Your task to perform on an android device: See recent photos Image 0: 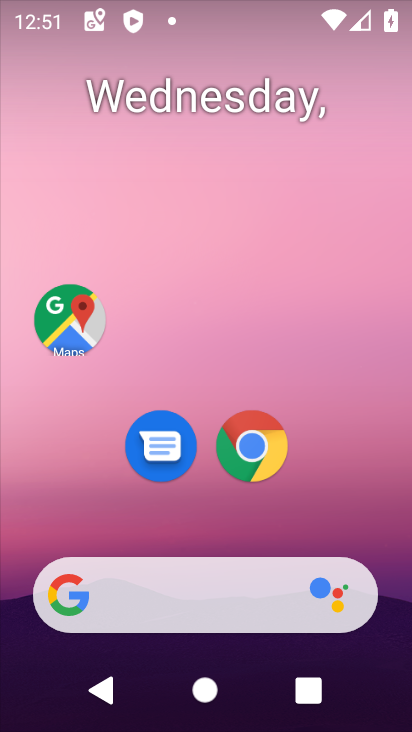
Step 0: drag from (312, 478) to (281, 66)
Your task to perform on an android device: See recent photos Image 1: 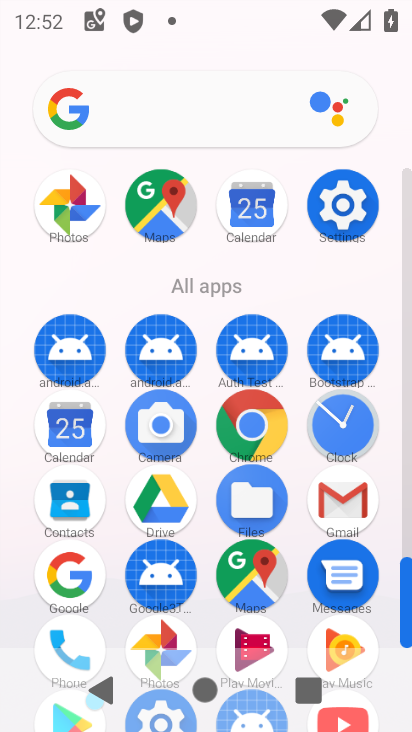
Step 1: click (168, 628)
Your task to perform on an android device: See recent photos Image 2: 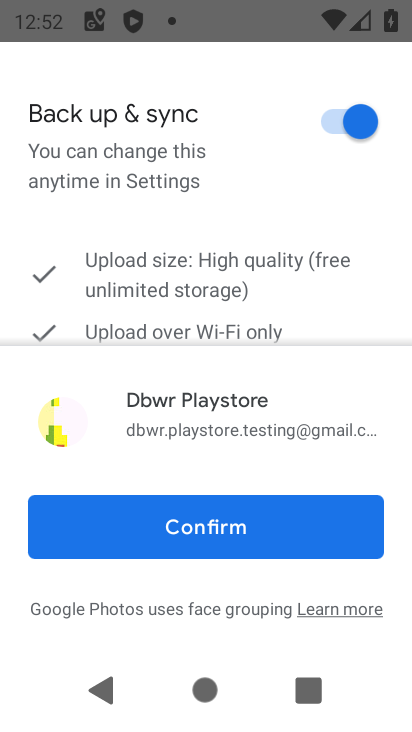
Step 2: click (236, 532)
Your task to perform on an android device: See recent photos Image 3: 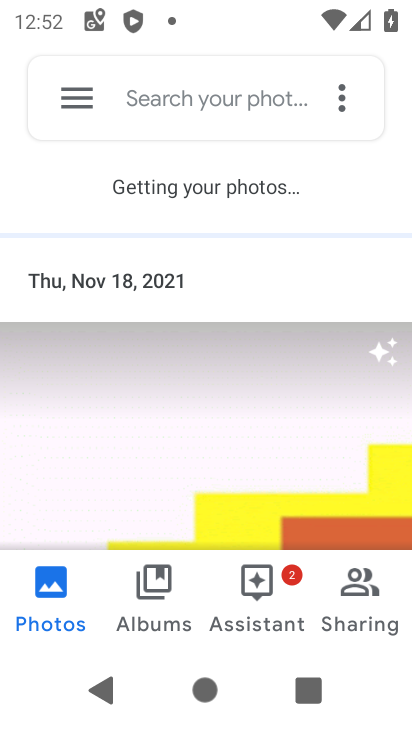
Step 3: task complete